Your task to perform on an android device: stop showing notifications on the lock screen Image 0: 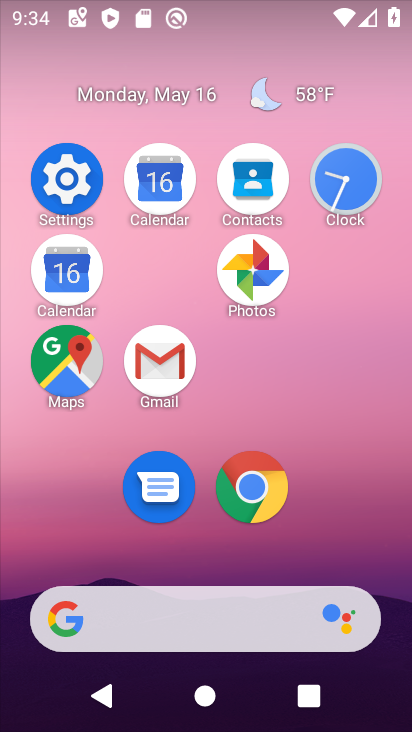
Step 0: click (91, 193)
Your task to perform on an android device: stop showing notifications on the lock screen Image 1: 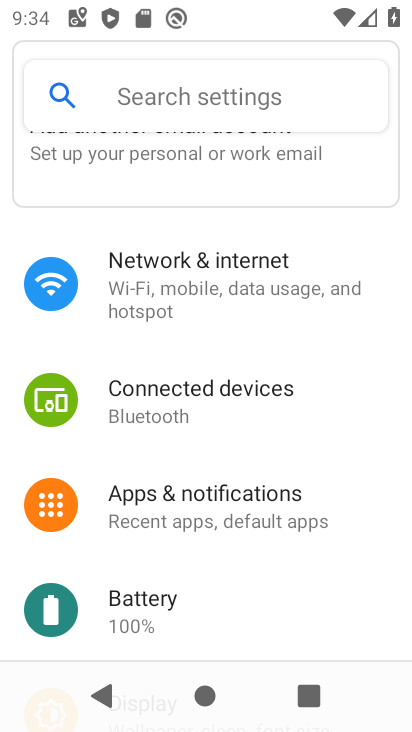
Step 1: click (274, 513)
Your task to perform on an android device: stop showing notifications on the lock screen Image 2: 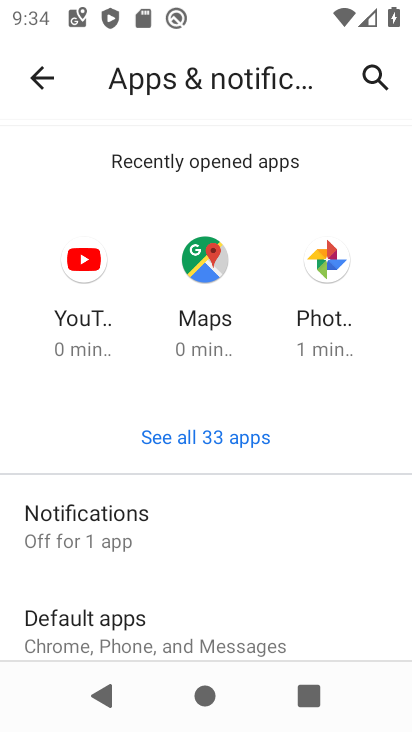
Step 2: click (130, 568)
Your task to perform on an android device: stop showing notifications on the lock screen Image 3: 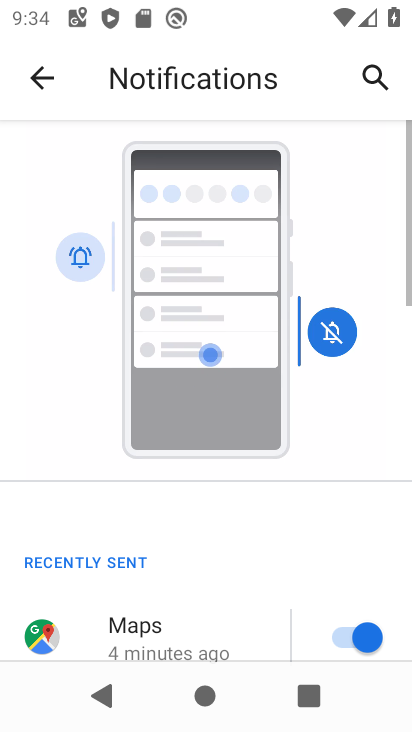
Step 3: drag from (183, 603) to (206, 144)
Your task to perform on an android device: stop showing notifications on the lock screen Image 4: 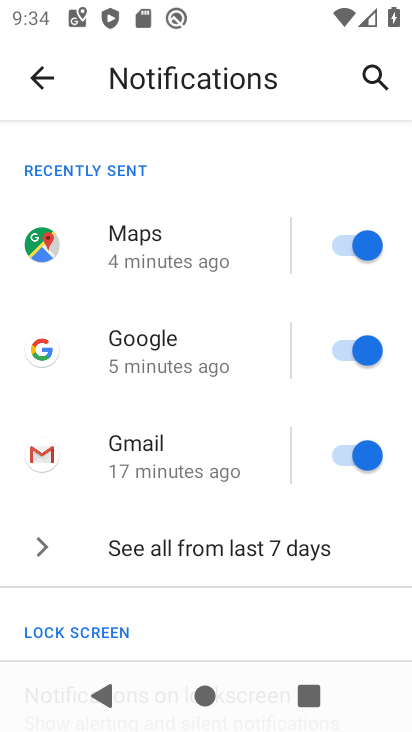
Step 4: drag from (205, 585) to (205, 196)
Your task to perform on an android device: stop showing notifications on the lock screen Image 5: 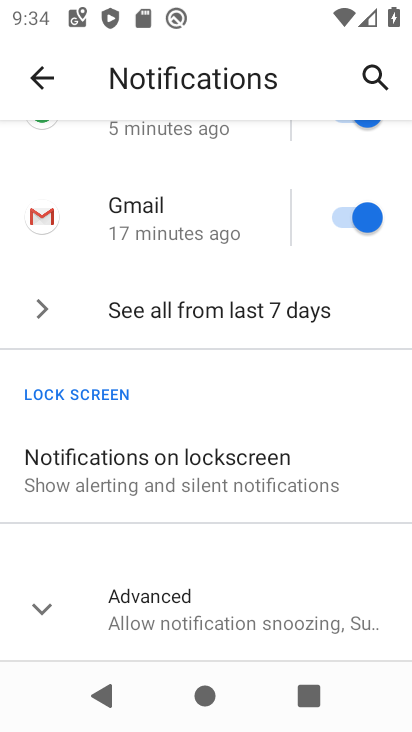
Step 5: click (197, 453)
Your task to perform on an android device: stop showing notifications on the lock screen Image 6: 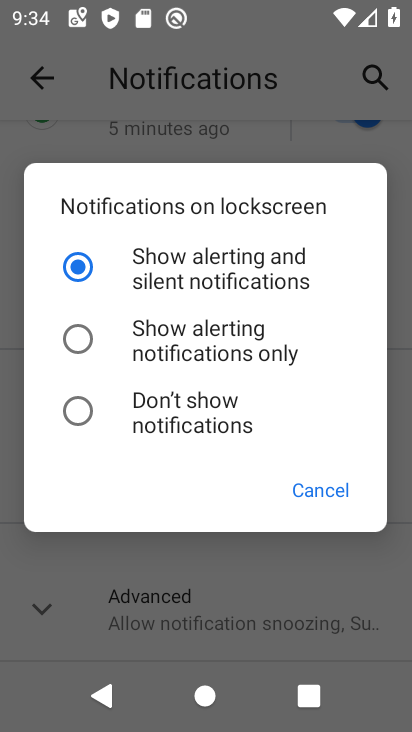
Step 6: click (168, 424)
Your task to perform on an android device: stop showing notifications on the lock screen Image 7: 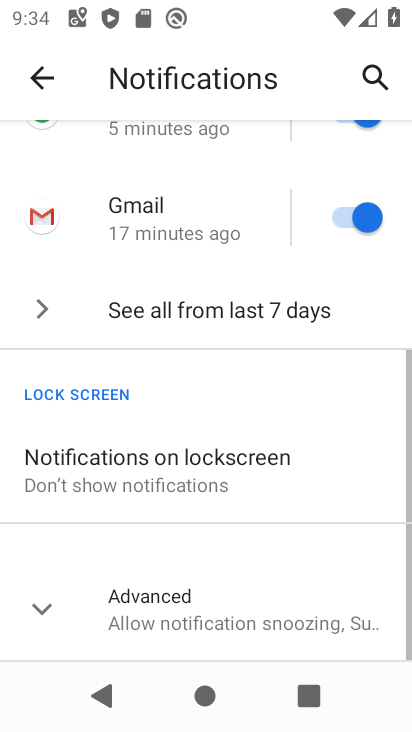
Step 7: task complete